Your task to perform on an android device: Open ESPN.com Image 0: 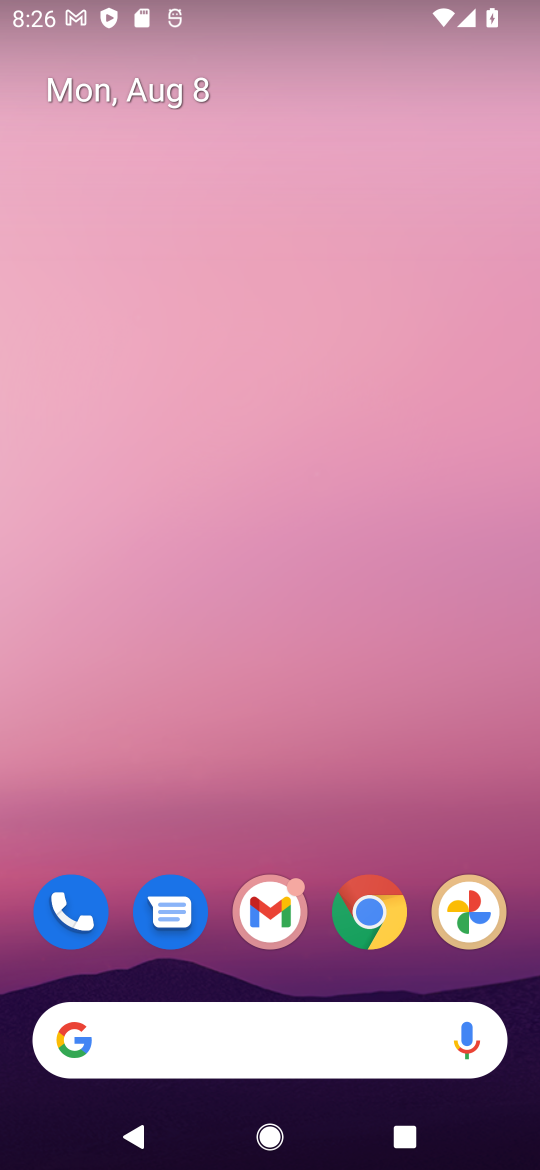
Step 0: drag from (509, 917) to (332, 87)
Your task to perform on an android device: Open ESPN.com Image 1: 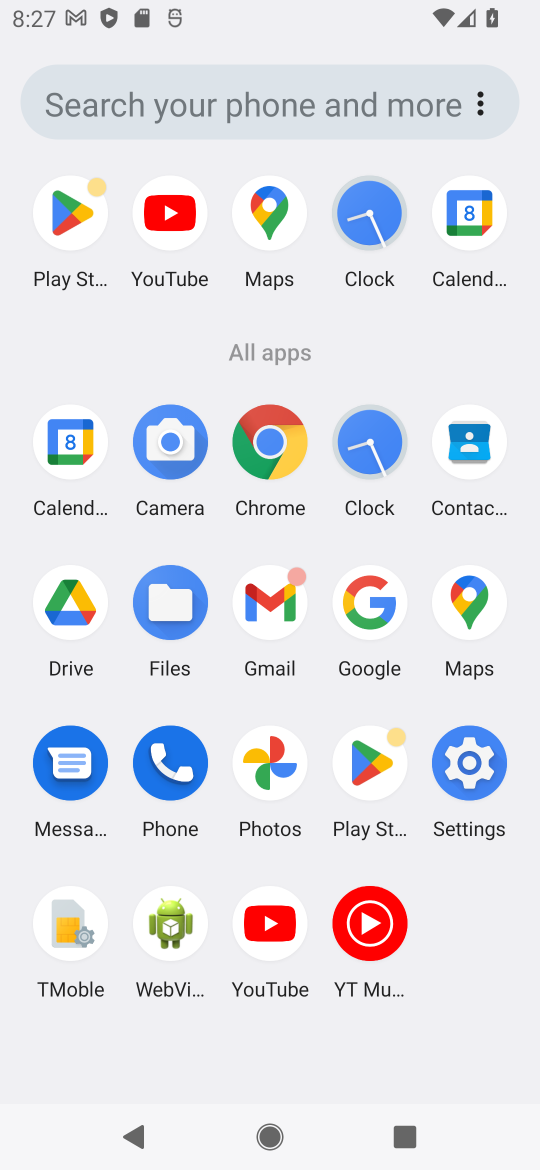
Step 1: click (357, 594)
Your task to perform on an android device: Open ESPN.com Image 2: 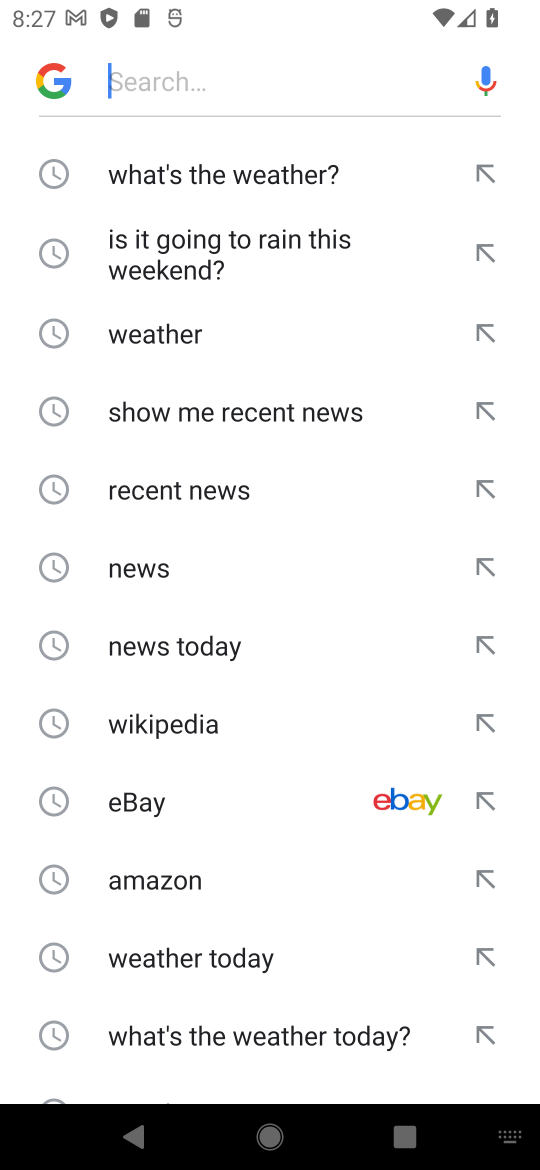
Step 2: type "ESPN.com"
Your task to perform on an android device: Open ESPN.com Image 3: 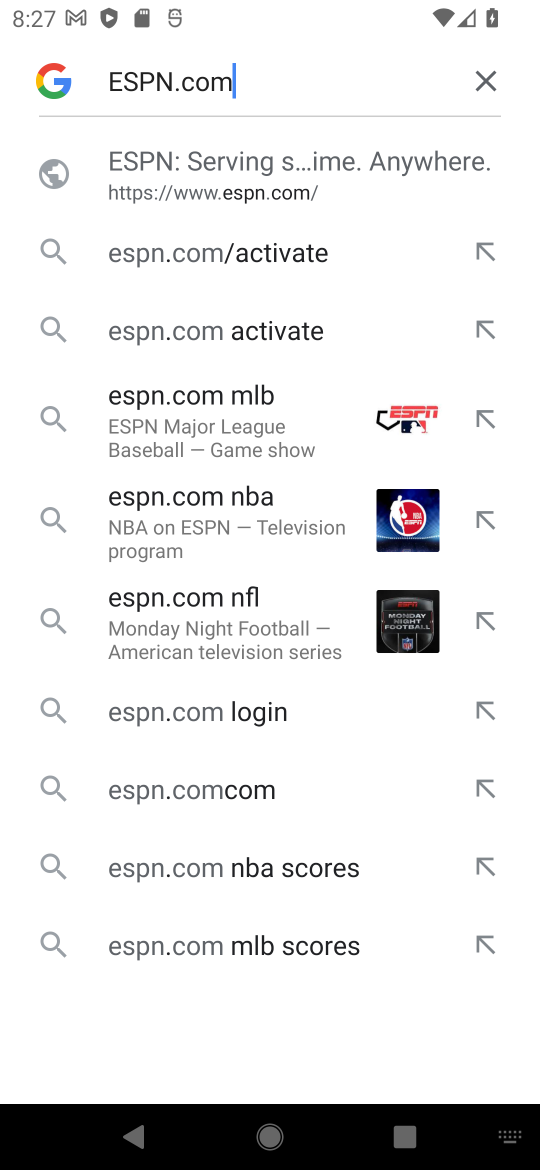
Step 3: click (335, 187)
Your task to perform on an android device: Open ESPN.com Image 4: 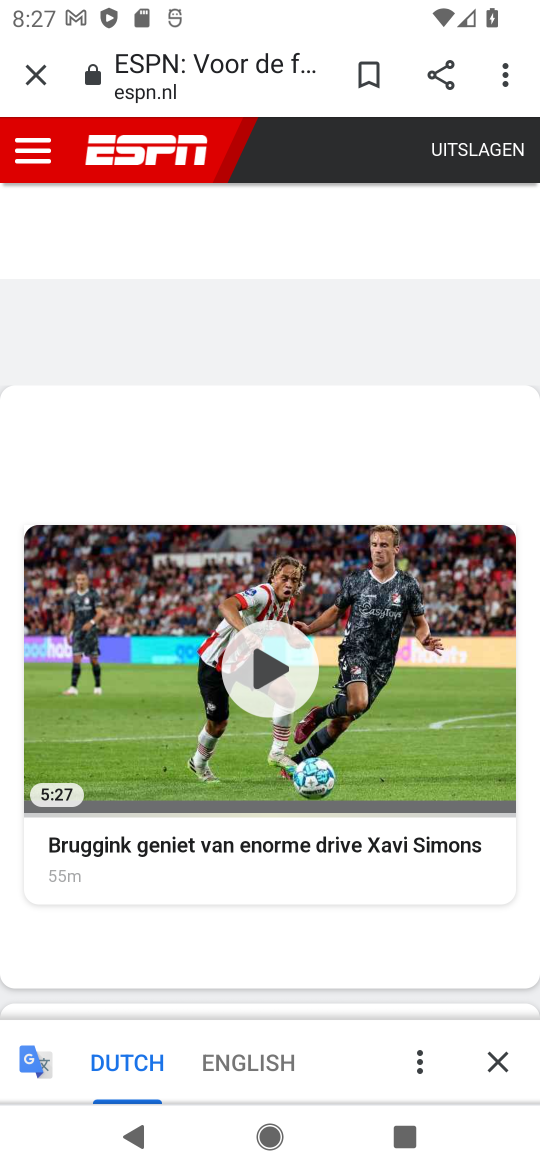
Step 4: task complete